Your task to perform on an android device: move a message to another label in the gmail app Image 0: 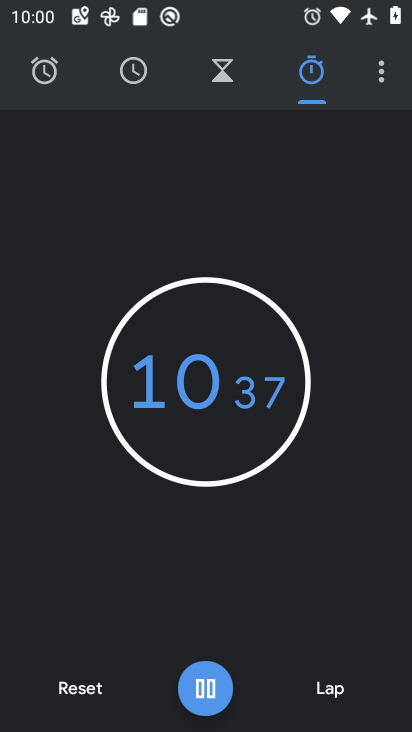
Step 0: press home button
Your task to perform on an android device: move a message to another label in the gmail app Image 1: 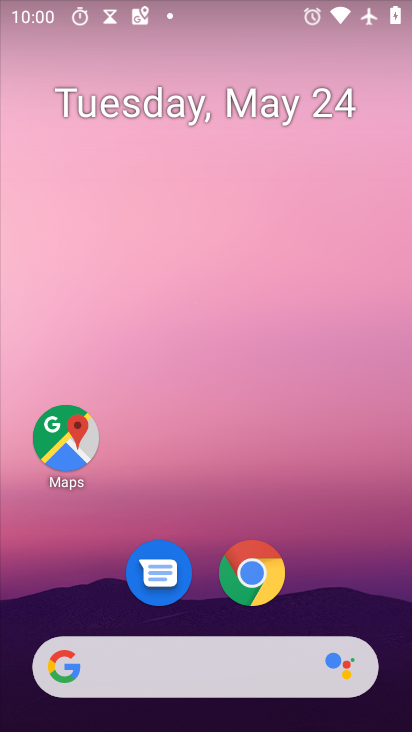
Step 1: drag from (319, 584) to (335, 87)
Your task to perform on an android device: move a message to another label in the gmail app Image 2: 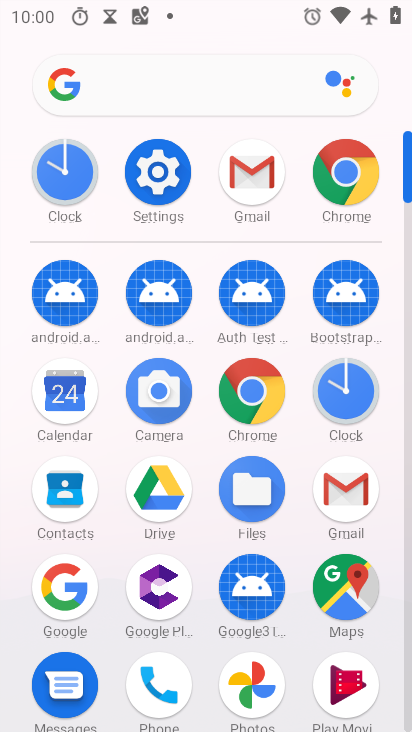
Step 2: click (251, 171)
Your task to perform on an android device: move a message to another label in the gmail app Image 3: 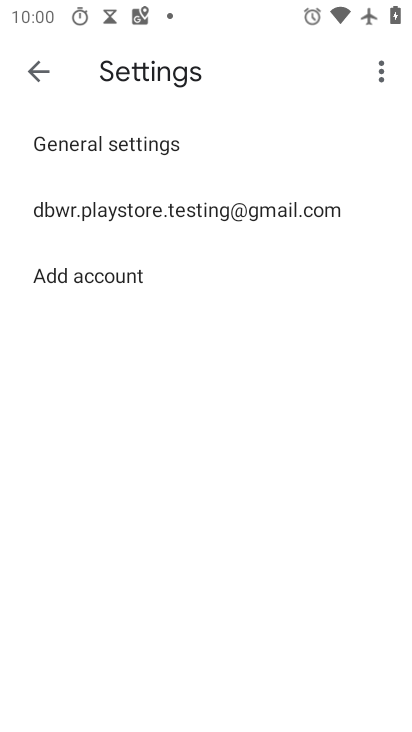
Step 3: click (20, 79)
Your task to perform on an android device: move a message to another label in the gmail app Image 4: 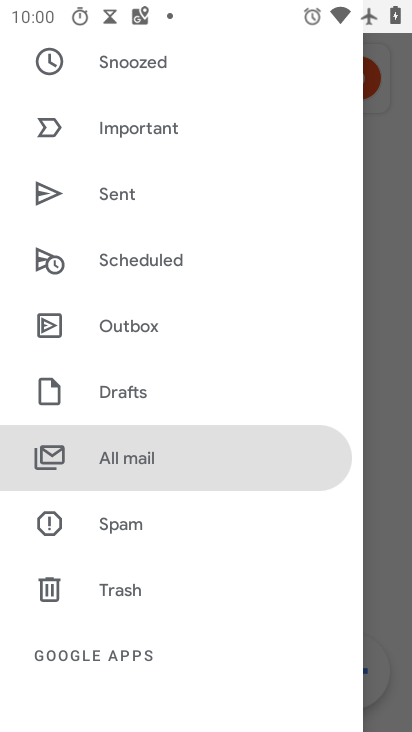
Step 4: click (188, 460)
Your task to perform on an android device: move a message to another label in the gmail app Image 5: 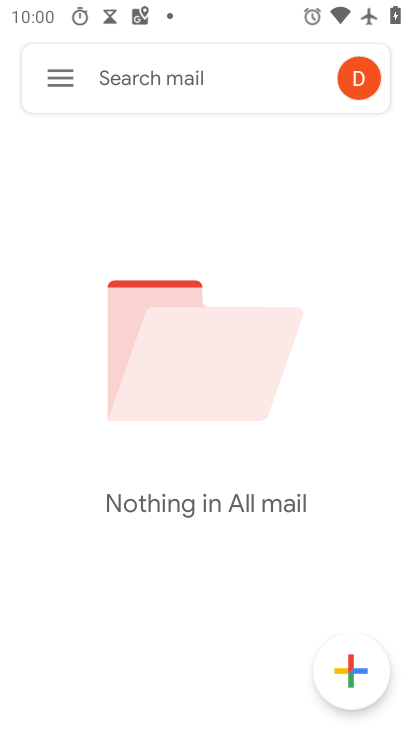
Step 5: task complete